Your task to perform on an android device: Open network settings Image 0: 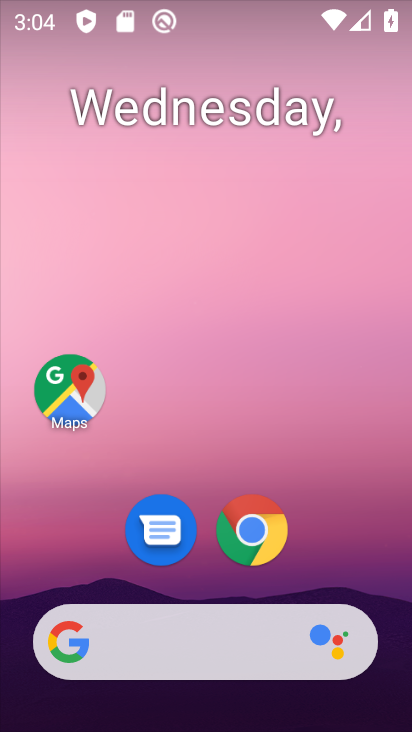
Step 0: click (265, 298)
Your task to perform on an android device: Open network settings Image 1: 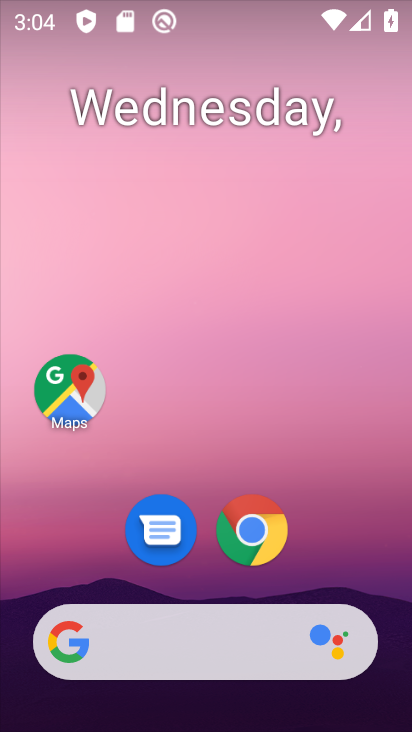
Step 1: drag from (239, 640) to (138, 220)
Your task to perform on an android device: Open network settings Image 2: 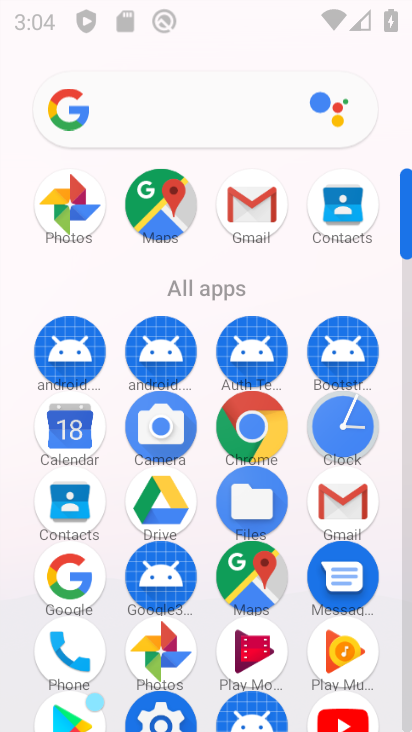
Step 2: drag from (260, 648) to (114, 42)
Your task to perform on an android device: Open network settings Image 3: 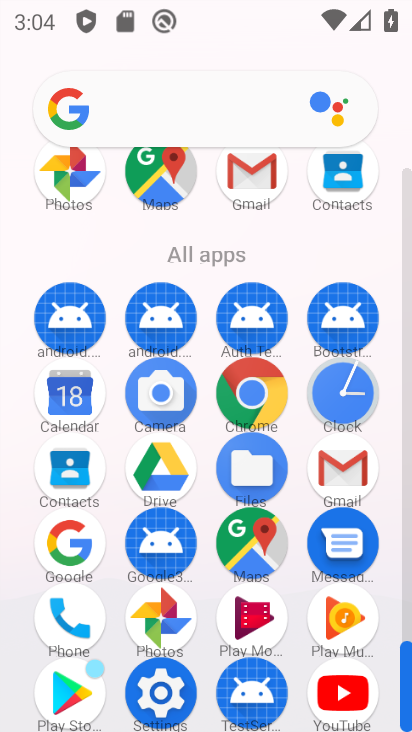
Step 3: click (165, 683)
Your task to perform on an android device: Open network settings Image 4: 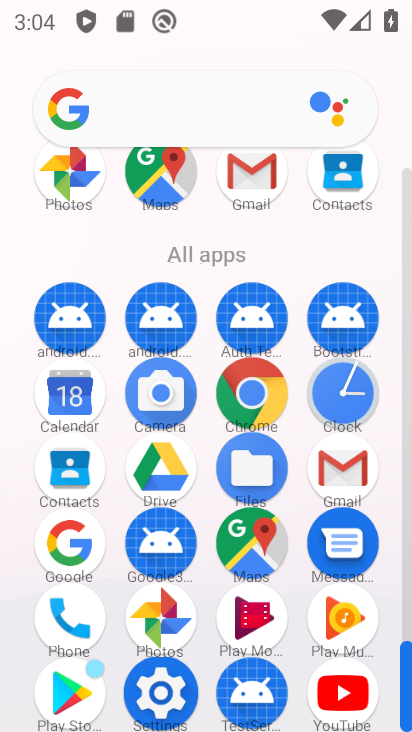
Step 4: drag from (171, 696) to (141, 676)
Your task to perform on an android device: Open network settings Image 5: 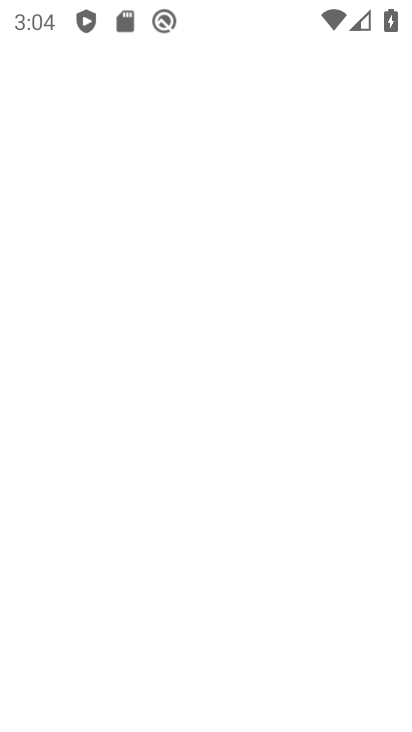
Step 5: click (152, 689)
Your task to perform on an android device: Open network settings Image 6: 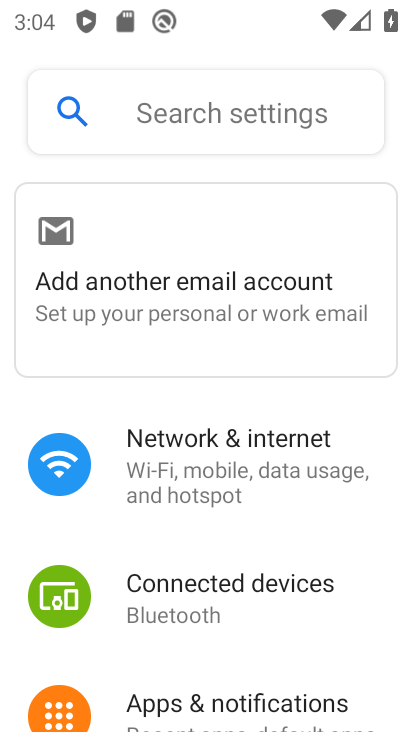
Step 6: click (221, 460)
Your task to perform on an android device: Open network settings Image 7: 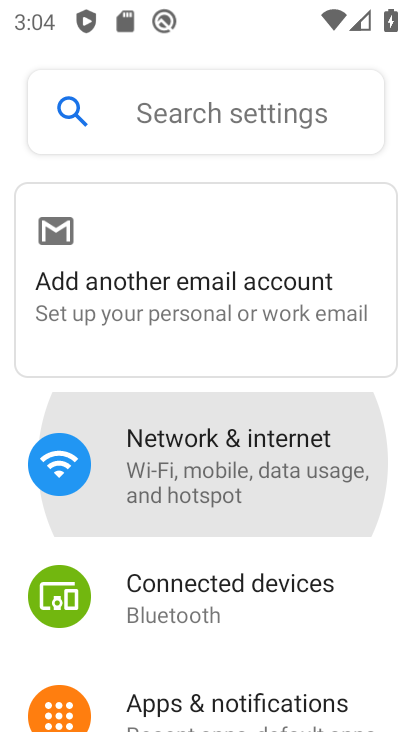
Step 7: click (221, 460)
Your task to perform on an android device: Open network settings Image 8: 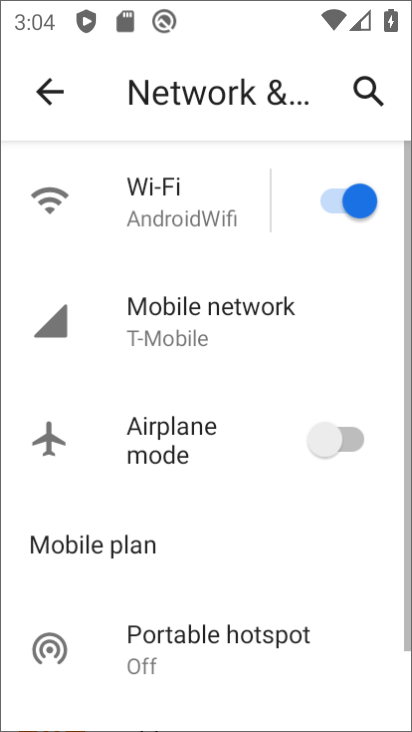
Step 8: click (215, 470)
Your task to perform on an android device: Open network settings Image 9: 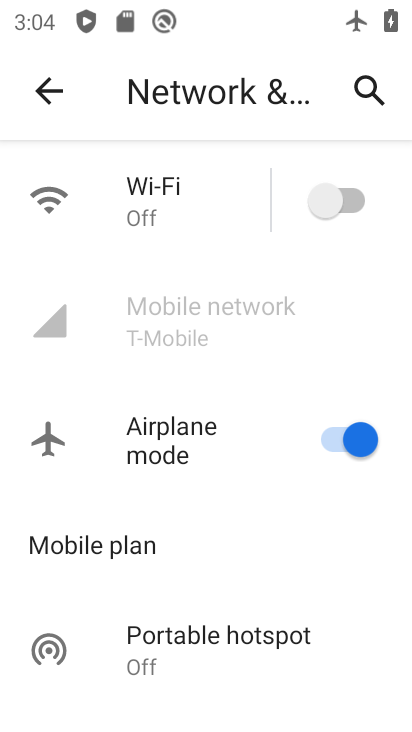
Step 9: click (313, 203)
Your task to perform on an android device: Open network settings Image 10: 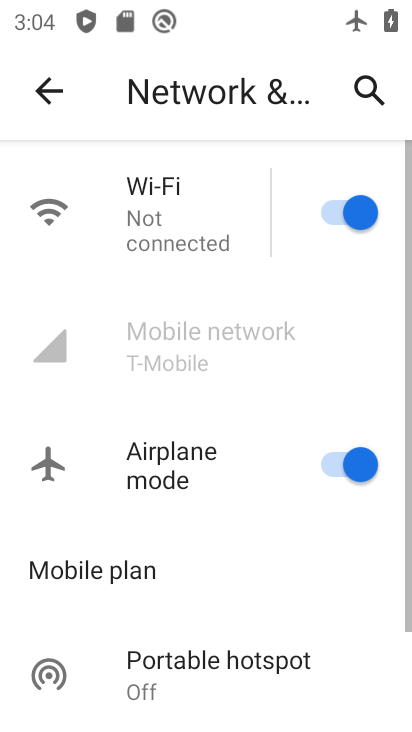
Step 10: click (370, 431)
Your task to perform on an android device: Open network settings Image 11: 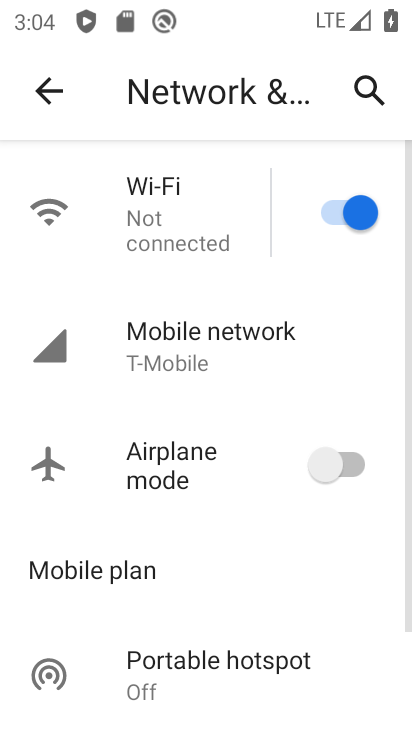
Step 11: task complete